Your task to perform on an android device: Show me popular videos on Youtube Image 0: 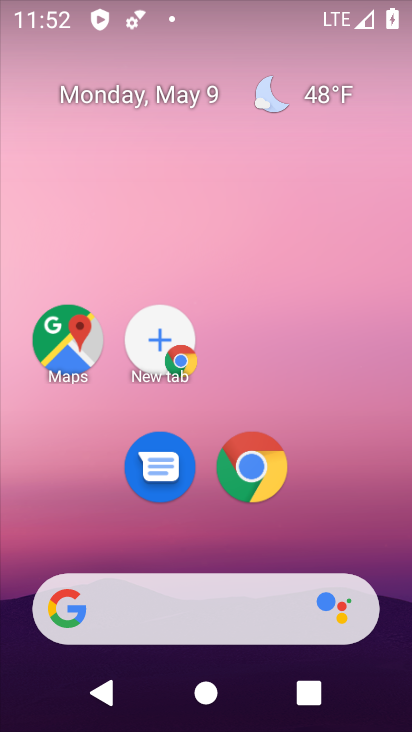
Step 0: drag from (348, 522) to (158, 24)
Your task to perform on an android device: Show me popular videos on Youtube Image 1: 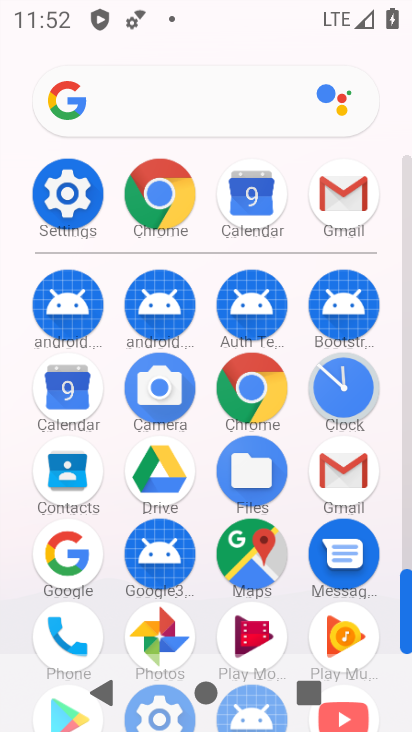
Step 1: drag from (291, 425) to (250, 228)
Your task to perform on an android device: Show me popular videos on Youtube Image 2: 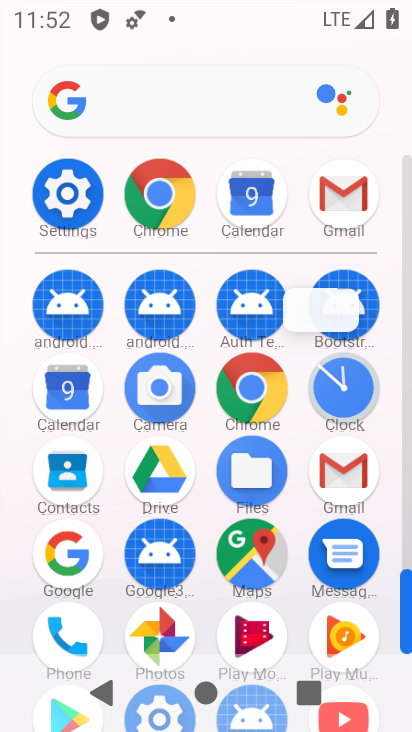
Step 2: drag from (305, 509) to (307, 182)
Your task to perform on an android device: Show me popular videos on Youtube Image 3: 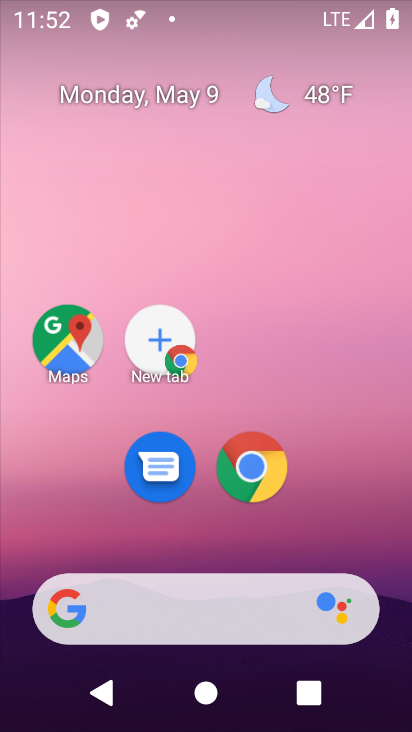
Step 3: drag from (287, 495) to (340, 196)
Your task to perform on an android device: Show me popular videos on Youtube Image 4: 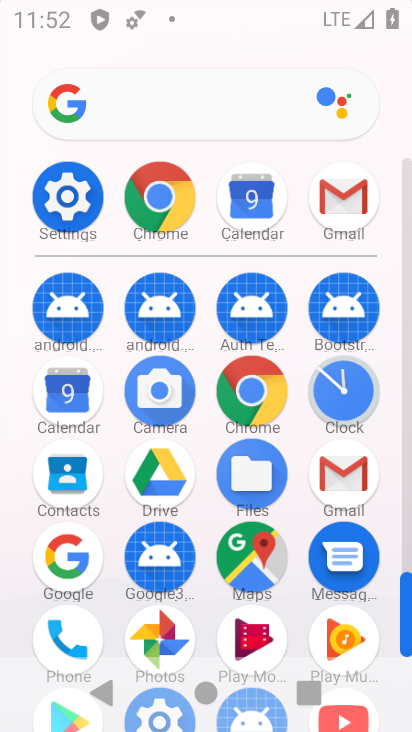
Step 4: drag from (318, 520) to (52, 16)
Your task to perform on an android device: Show me popular videos on Youtube Image 5: 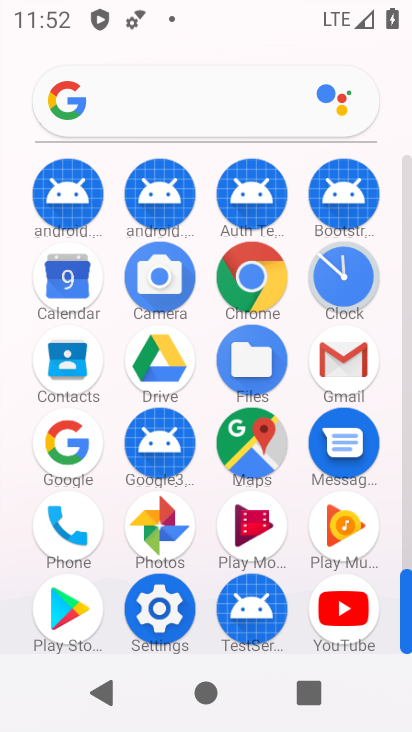
Step 5: click (341, 599)
Your task to perform on an android device: Show me popular videos on Youtube Image 6: 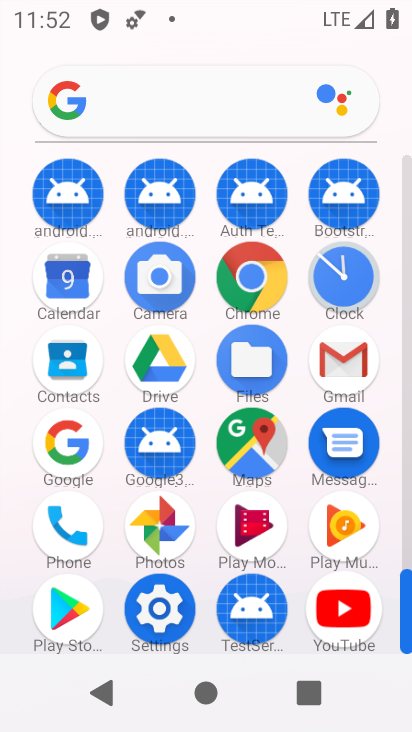
Step 6: click (341, 599)
Your task to perform on an android device: Show me popular videos on Youtube Image 7: 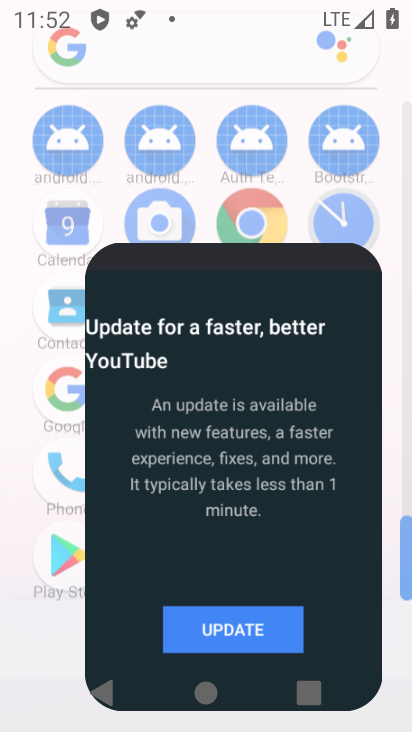
Step 7: click (341, 599)
Your task to perform on an android device: Show me popular videos on Youtube Image 8: 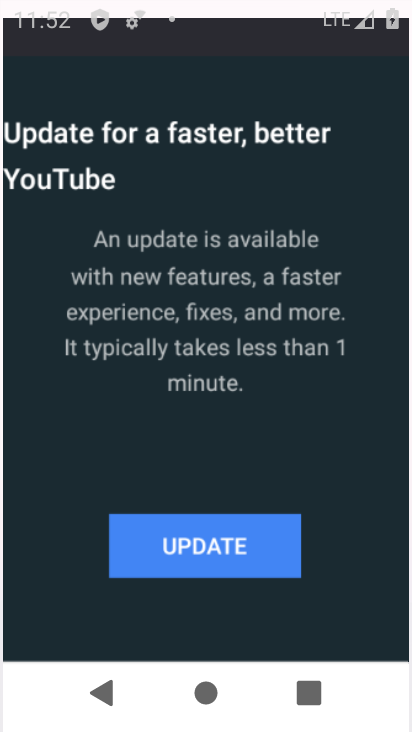
Step 8: click (341, 599)
Your task to perform on an android device: Show me popular videos on Youtube Image 9: 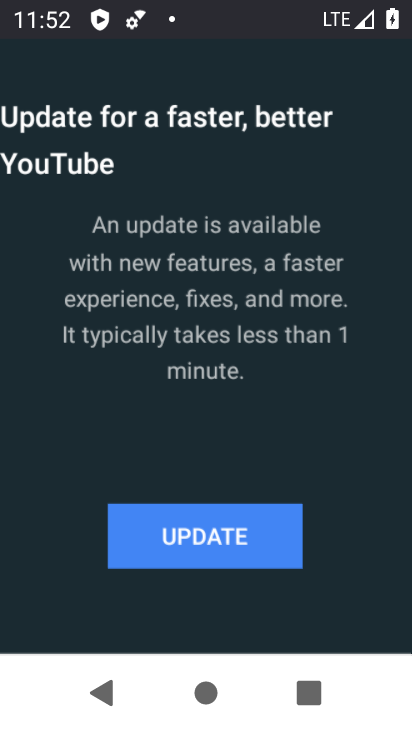
Step 9: click (342, 600)
Your task to perform on an android device: Show me popular videos on Youtube Image 10: 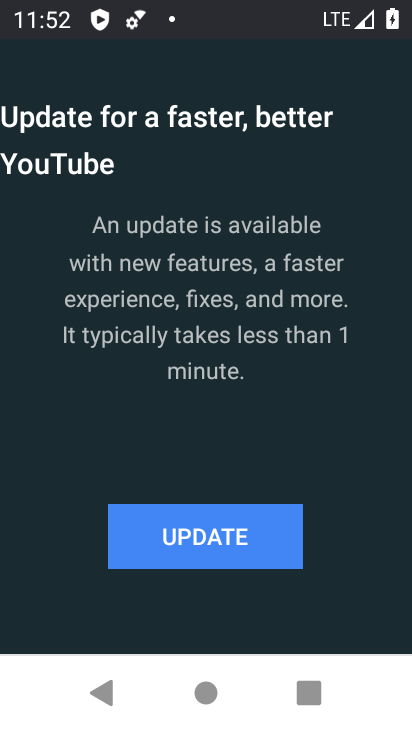
Step 10: click (199, 527)
Your task to perform on an android device: Show me popular videos on Youtube Image 11: 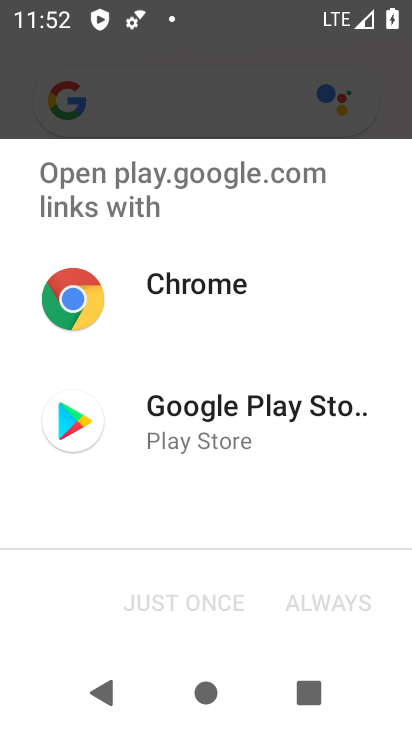
Step 11: click (178, 431)
Your task to perform on an android device: Show me popular videos on Youtube Image 12: 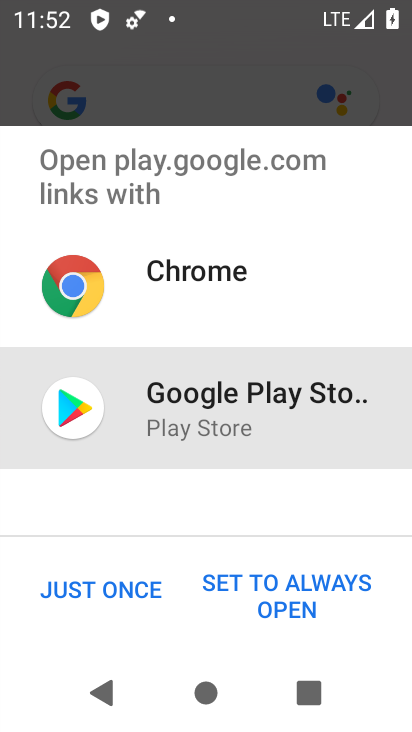
Step 12: click (178, 431)
Your task to perform on an android device: Show me popular videos on Youtube Image 13: 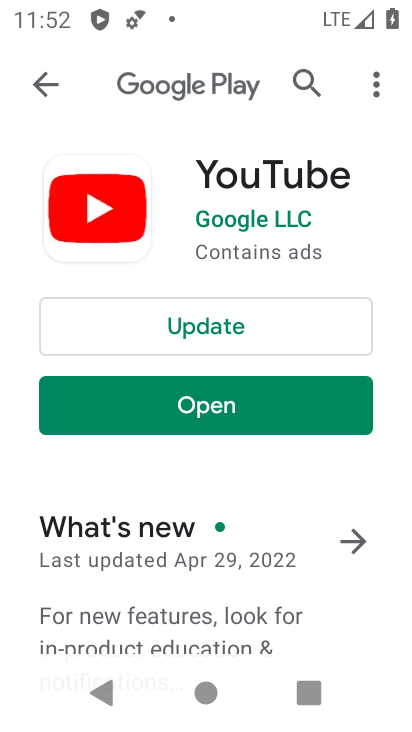
Step 13: click (213, 379)
Your task to perform on an android device: Show me popular videos on Youtube Image 14: 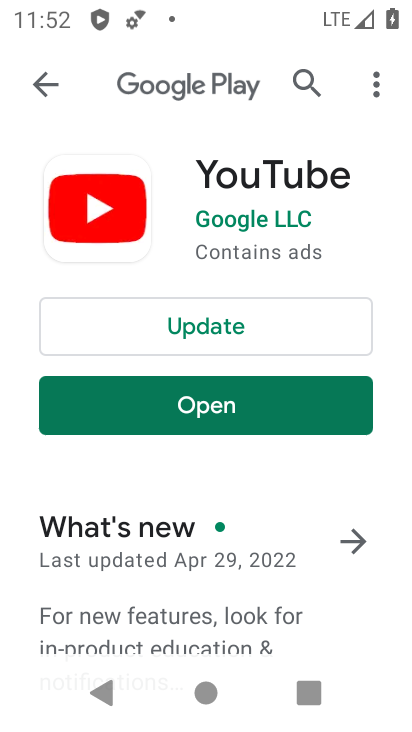
Step 14: click (204, 335)
Your task to perform on an android device: Show me popular videos on Youtube Image 15: 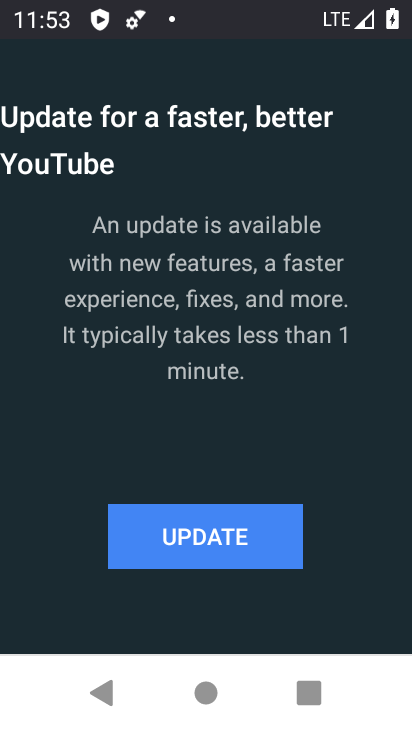
Step 15: click (176, 532)
Your task to perform on an android device: Show me popular videos on Youtube Image 16: 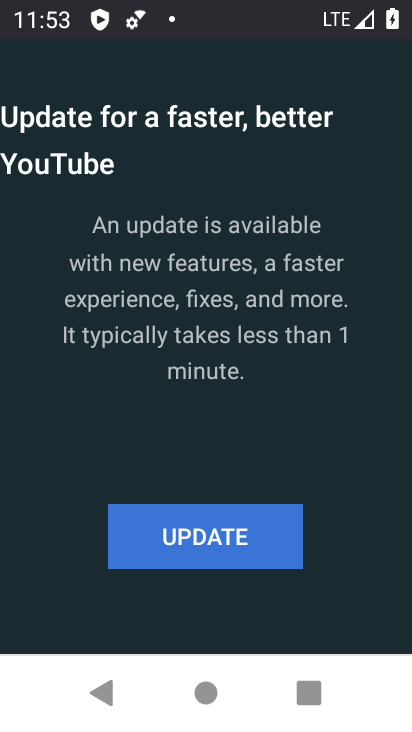
Step 16: click (176, 532)
Your task to perform on an android device: Show me popular videos on Youtube Image 17: 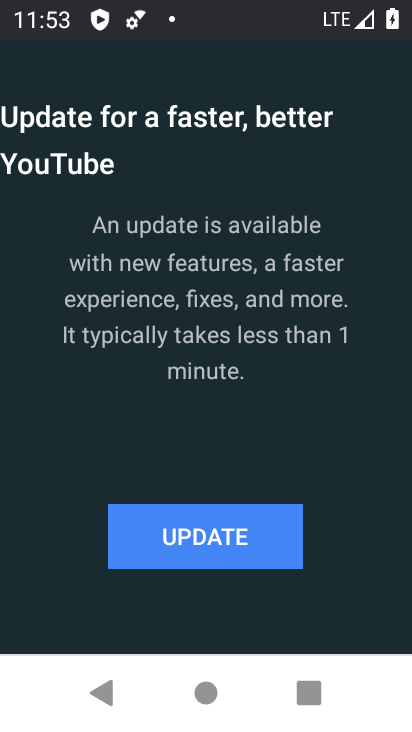
Step 17: click (176, 532)
Your task to perform on an android device: Show me popular videos on Youtube Image 18: 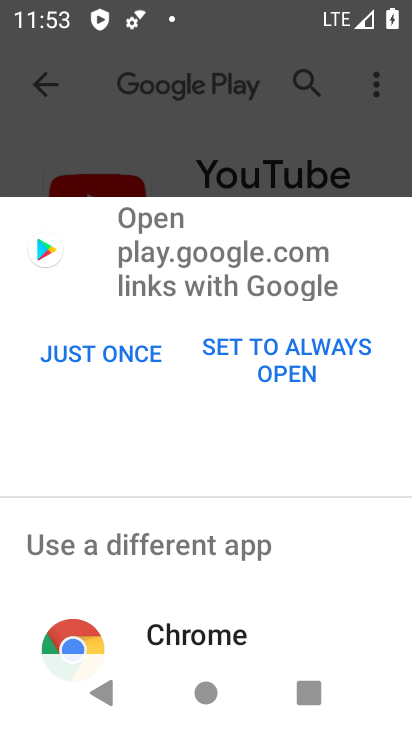
Step 18: click (212, 624)
Your task to perform on an android device: Show me popular videos on Youtube Image 19: 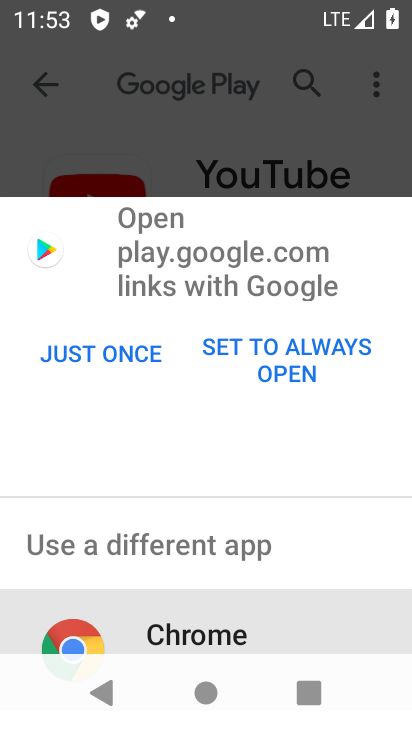
Step 19: click (212, 624)
Your task to perform on an android device: Show me popular videos on Youtube Image 20: 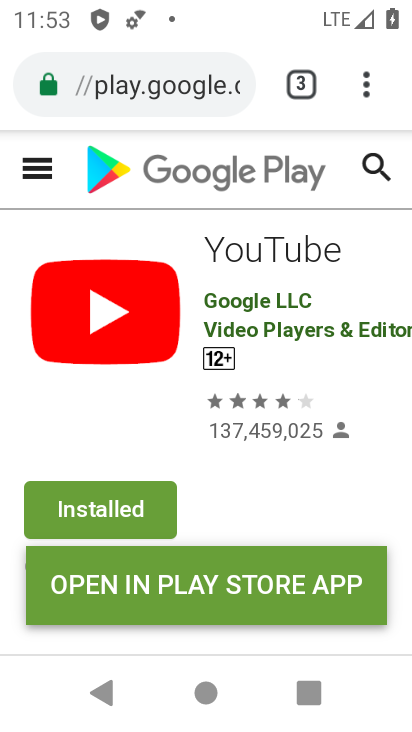
Step 20: click (109, 511)
Your task to perform on an android device: Show me popular videos on Youtube Image 21: 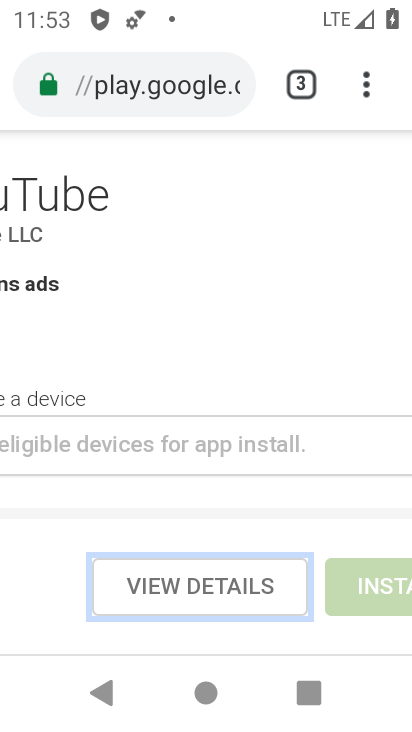
Step 21: click (216, 584)
Your task to perform on an android device: Show me popular videos on Youtube Image 22: 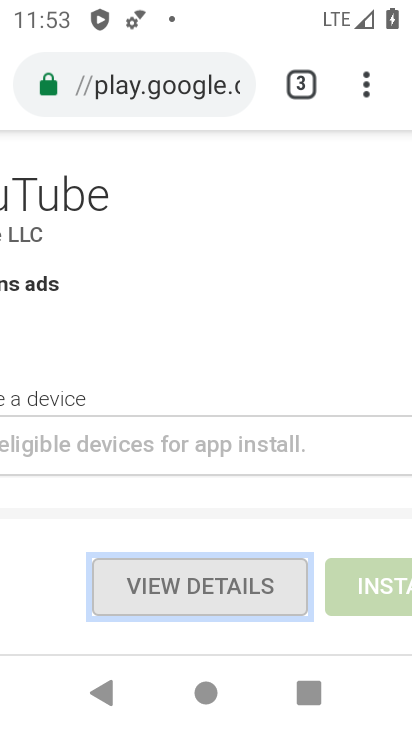
Step 22: drag from (192, 389) to (6, 359)
Your task to perform on an android device: Show me popular videos on Youtube Image 23: 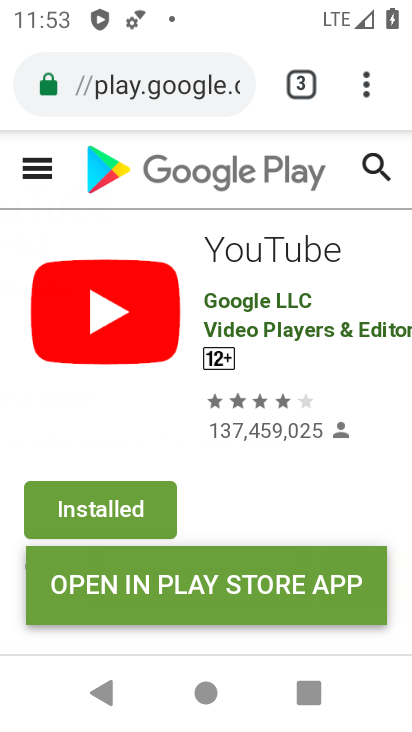
Step 23: click (97, 303)
Your task to perform on an android device: Show me popular videos on Youtube Image 24: 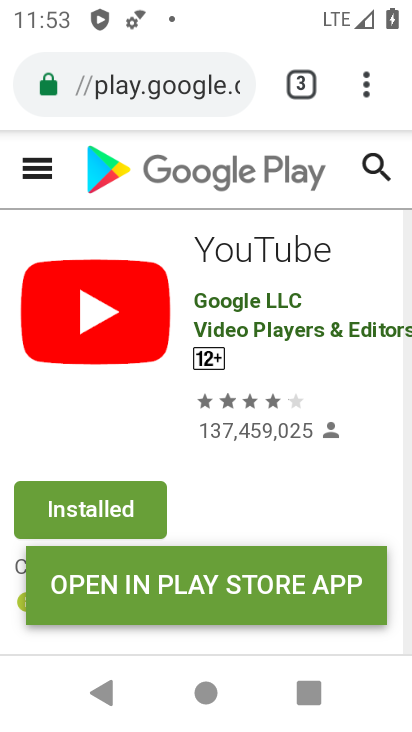
Step 24: click (97, 303)
Your task to perform on an android device: Show me popular videos on Youtube Image 25: 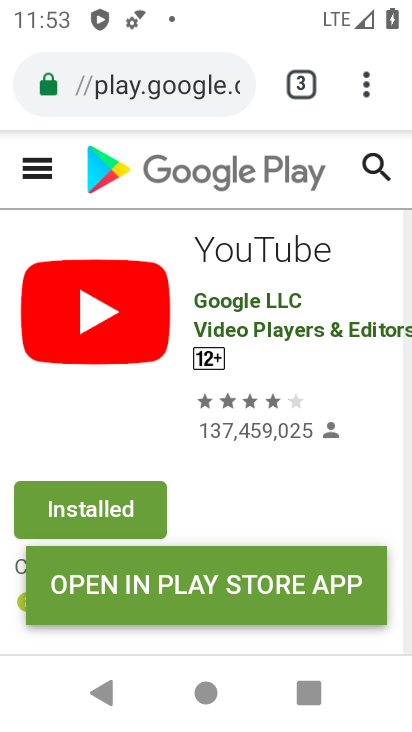
Step 25: click (97, 303)
Your task to perform on an android device: Show me popular videos on Youtube Image 26: 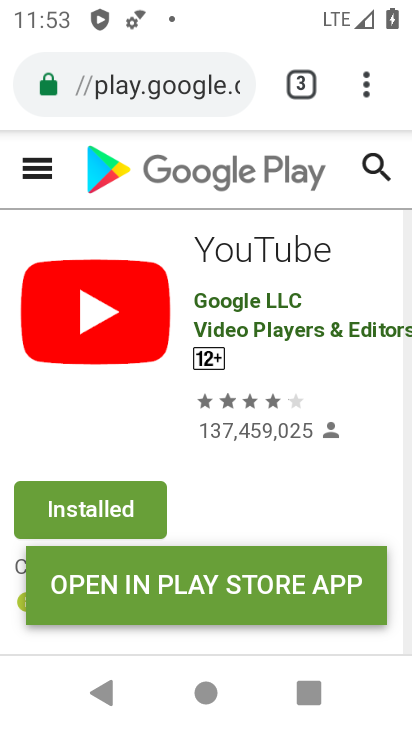
Step 26: click (97, 303)
Your task to perform on an android device: Show me popular videos on Youtube Image 27: 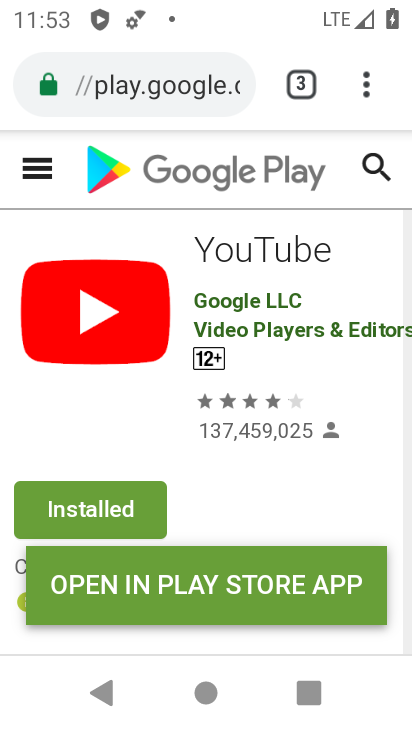
Step 27: click (97, 303)
Your task to perform on an android device: Show me popular videos on Youtube Image 28: 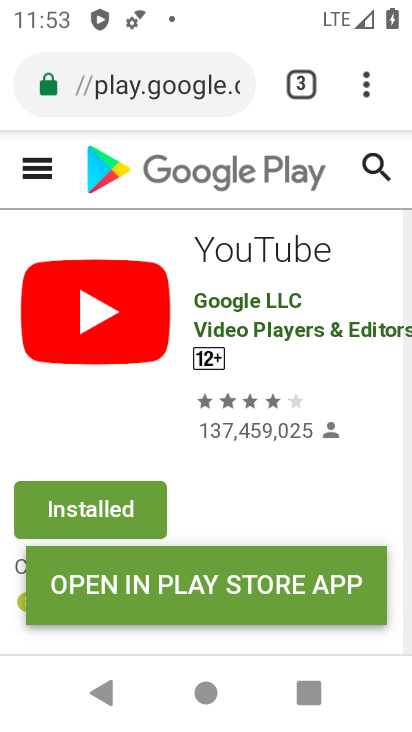
Step 28: click (97, 303)
Your task to perform on an android device: Show me popular videos on Youtube Image 29: 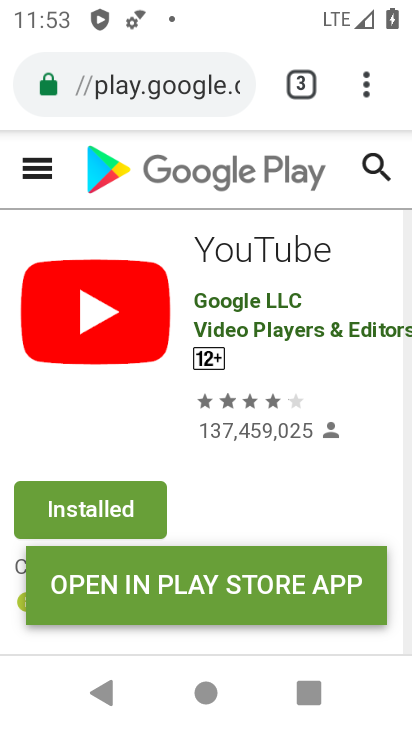
Step 29: drag from (97, 303) to (97, 373)
Your task to perform on an android device: Show me popular videos on Youtube Image 30: 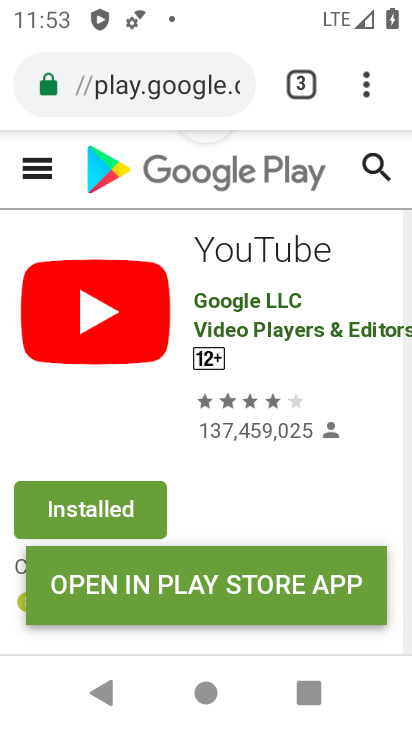
Step 30: click (97, 386)
Your task to perform on an android device: Show me popular videos on Youtube Image 31: 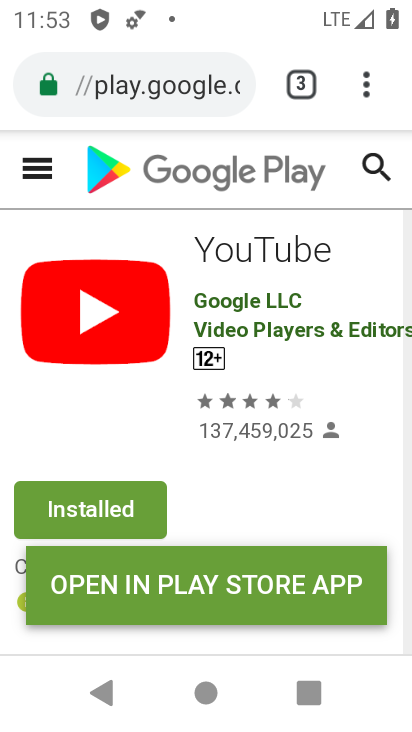
Step 31: task complete